Your task to perform on an android device: What's the weather? Image 0: 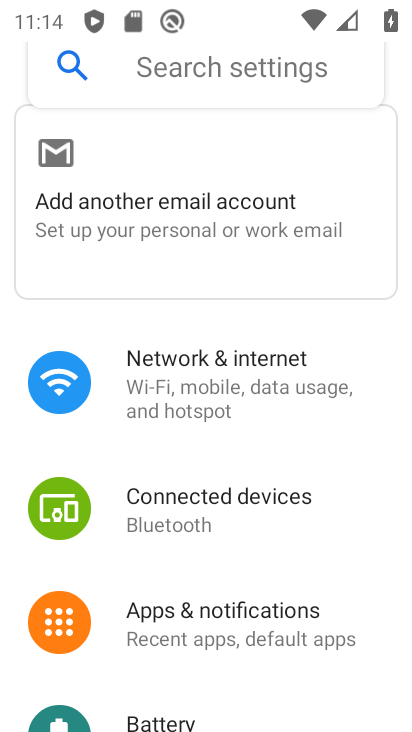
Step 0: press home button
Your task to perform on an android device: What's the weather? Image 1: 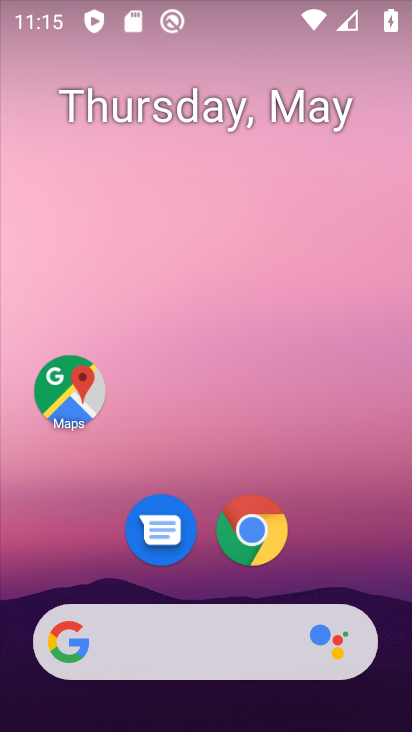
Step 1: click (154, 619)
Your task to perform on an android device: What's the weather? Image 2: 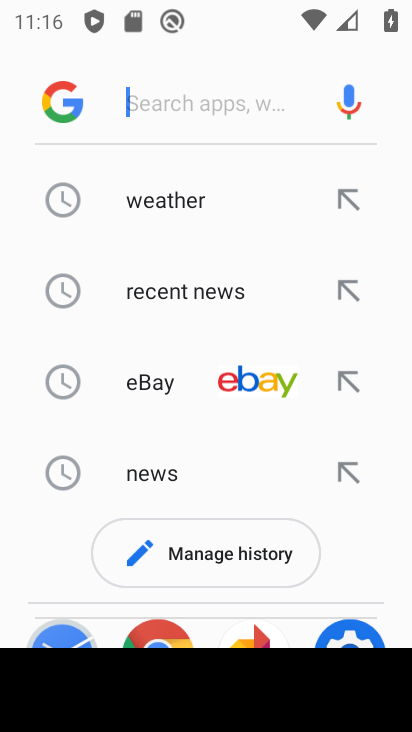
Step 2: type "what's the weather"
Your task to perform on an android device: What's the weather? Image 3: 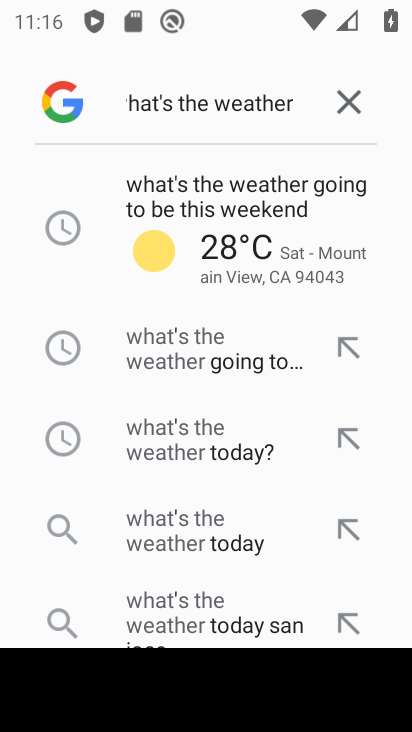
Step 3: click (347, 170)
Your task to perform on an android device: What's the weather? Image 4: 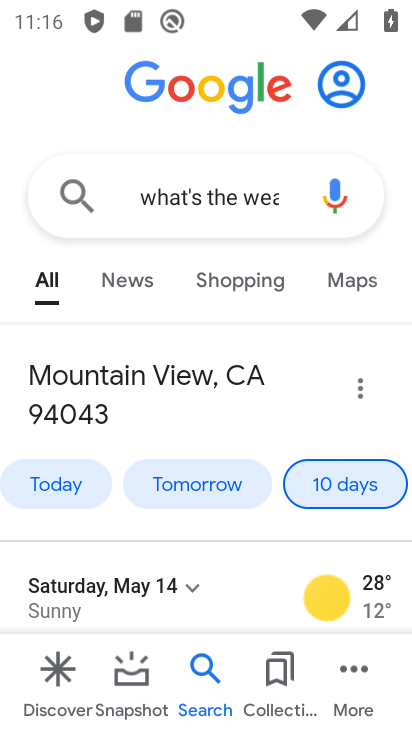
Step 4: task complete